Your task to perform on an android device: open wifi settings Image 0: 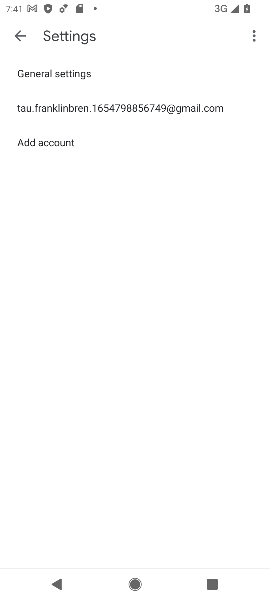
Step 0: press home button
Your task to perform on an android device: open wifi settings Image 1: 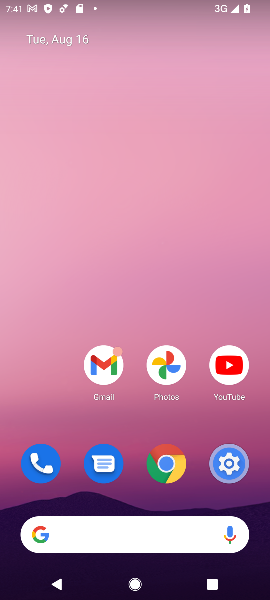
Step 1: drag from (131, 492) to (164, 99)
Your task to perform on an android device: open wifi settings Image 2: 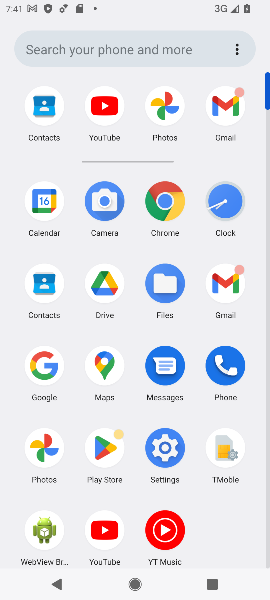
Step 2: click (153, 441)
Your task to perform on an android device: open wifi settings Image 3: 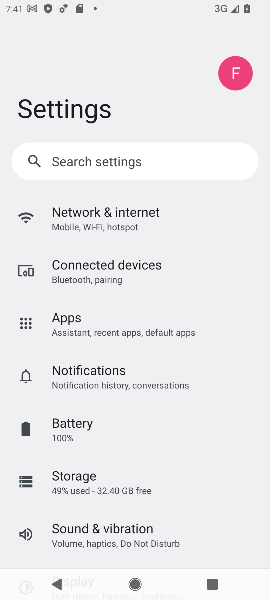
Step 3: click (106, 223)
Your task to perform on an android device: open wifi settings Image 4: 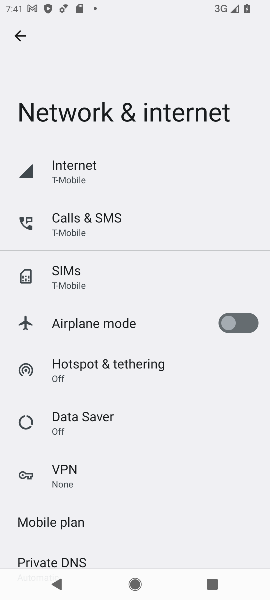
Step 4: click (39, 172)
Your task to perform on an android device: open wifi settings Image 5: 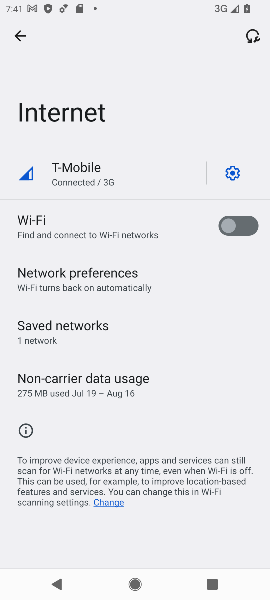
Step 5: task complete